Your task to perform on an android device: Open the stopwatch Image 0: 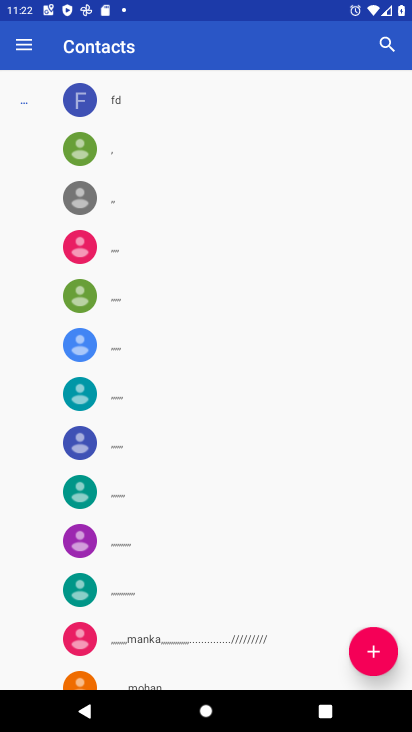
Step 0: press home button
Your task to perform on an android device: Open the stopwatch Image 1: 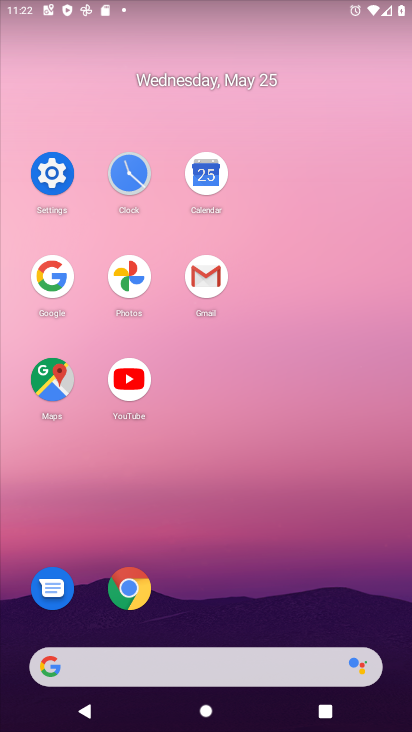
Step 1: click (143, 187)
Your task to perform on an android device: Open the stopwatch Image 2: 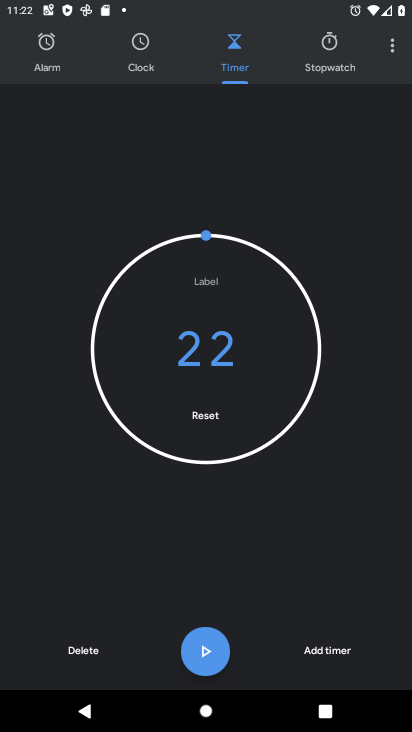
Step 2: click (313, 73)
Your task to perform on an android device: Open the stopwatch Image 3: 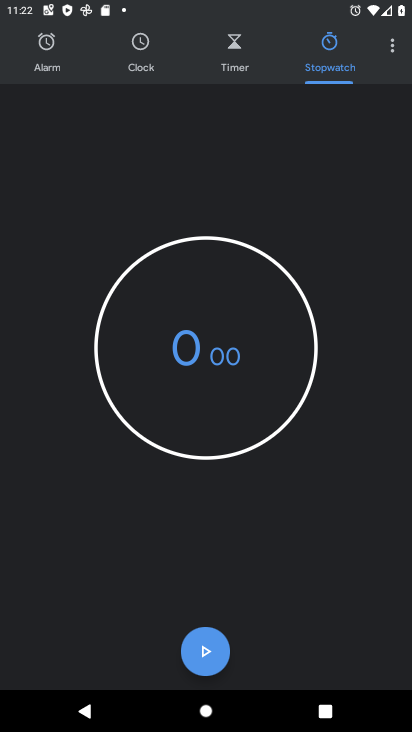
Step 3: task complete